Your task to perform on an android device: turn off picture-in-picture Image 0: 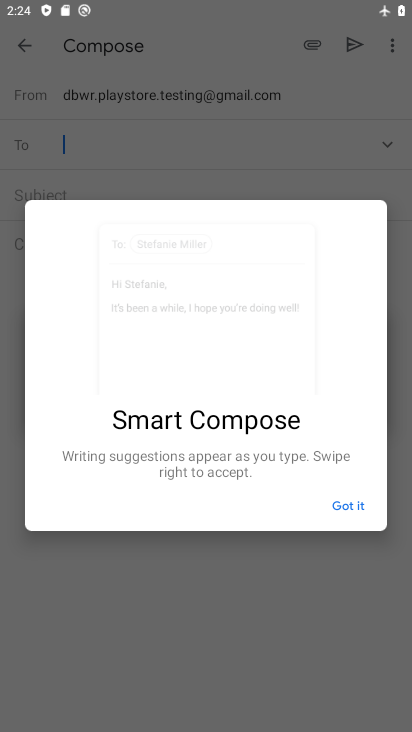
Step 0: press home button
Your task to perform on an android device: turn off picture-in-picture Image 1: 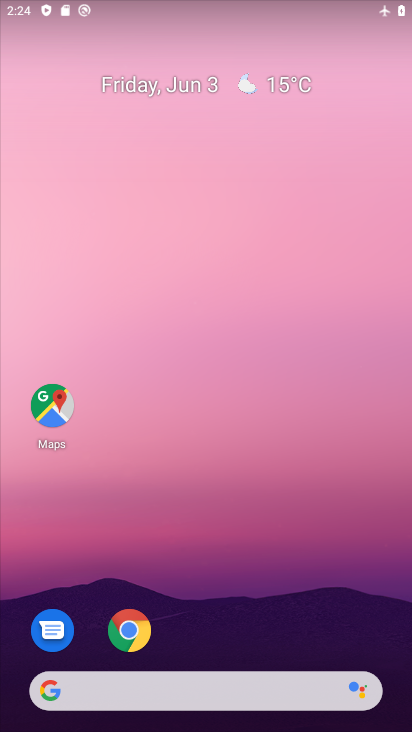
Step 1: click (124, 615)
Your task to perform on an android device: turn off picture-in-picture Image 2: 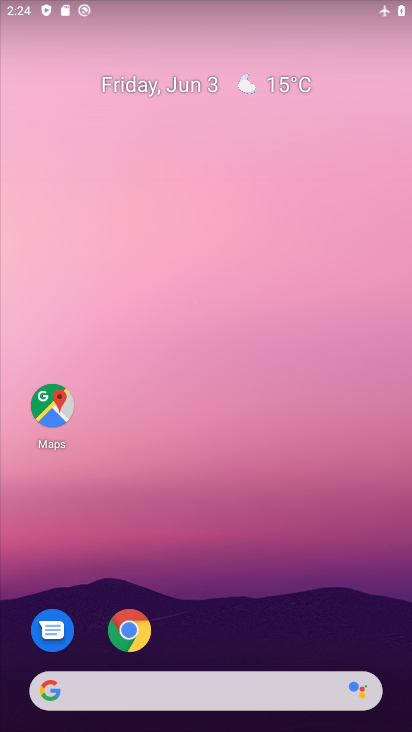
Step 2: click (135, 613)
Your task to perform on an android device: turn off picture-in-picture Image 3: 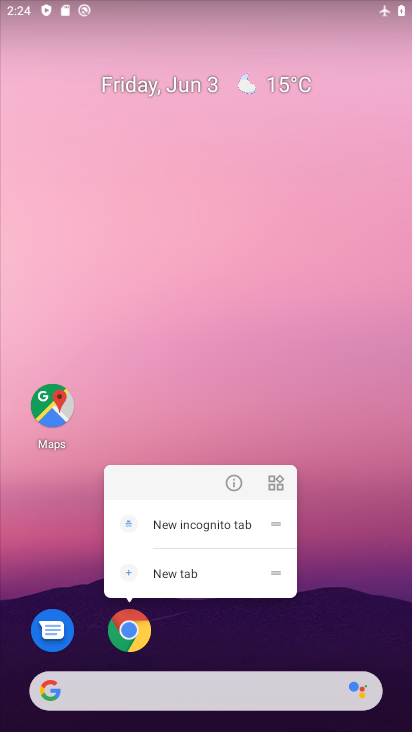
Step 3: click (228, 476)
Your task to perform on an android device: turn off picture-in-picture Image 4: 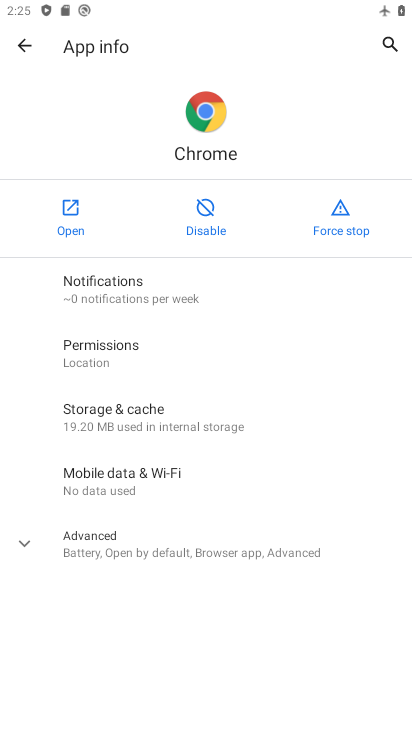
Step 4: click (120, 559)
Your task to perform on an android device: turn off picture-in-picture Image 5: 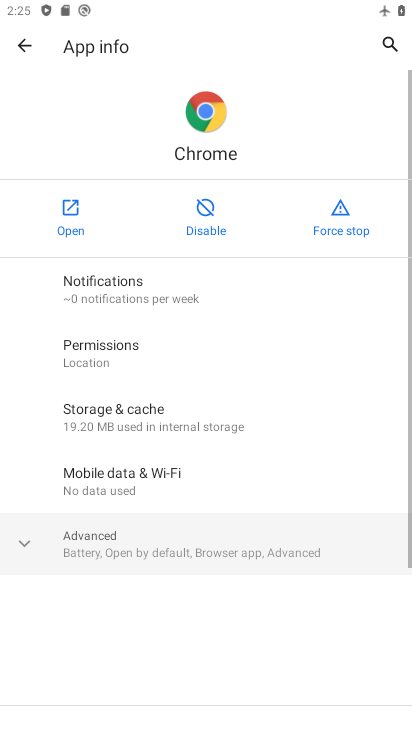
Step 5: drag from (181, 690) to (226, 315)
Your task to perform on an android device: turn off picture-in-picture Image 6: 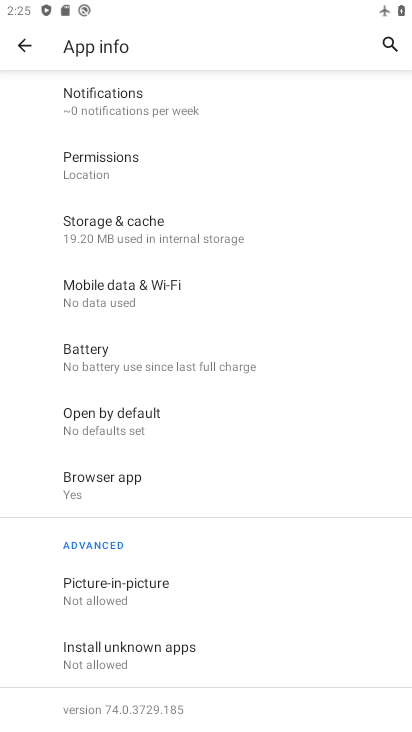
Step 6: click (115, 595)
Your task to perform on an android device: turn off picture-in-picture Image 7: 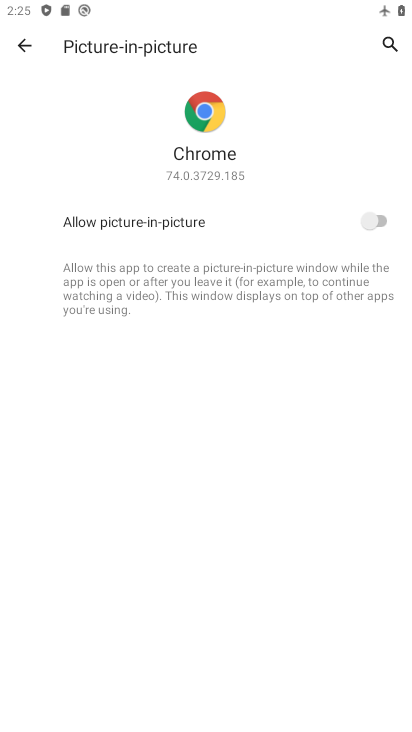
Step 7: task complete